Your task to perform on an android device: turn on translation in the chrome app Image 0: 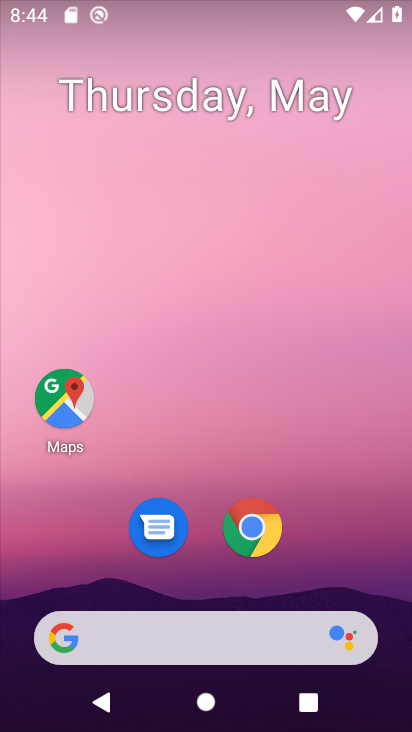
Step 0: click (245, 544)
Your task to perform on an android device: turn on translation in the chrome app Image 1: 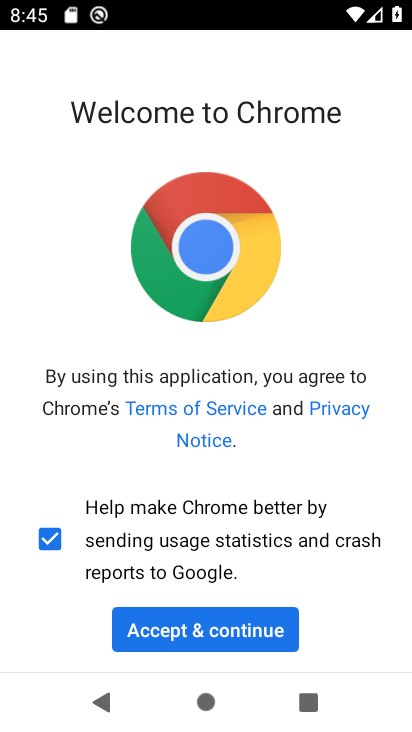
Step 1: click (212, 646)
Your task to perform on an android device: turn on translation in the chrome app Image 2: 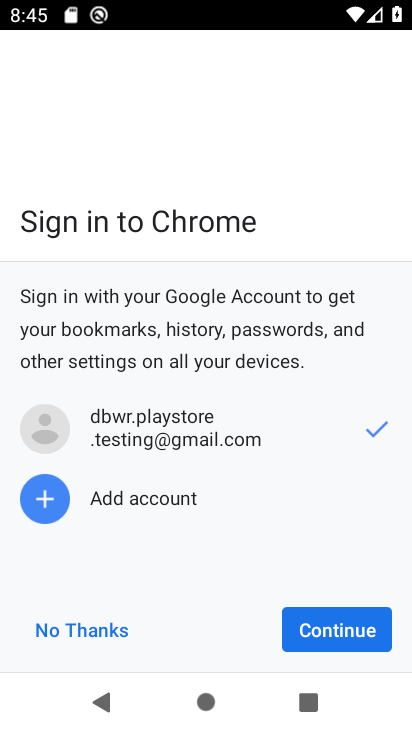
Step 2: click (351, 619)
Your task to perform on an android device: turn on translation in the chrome app Image 3: 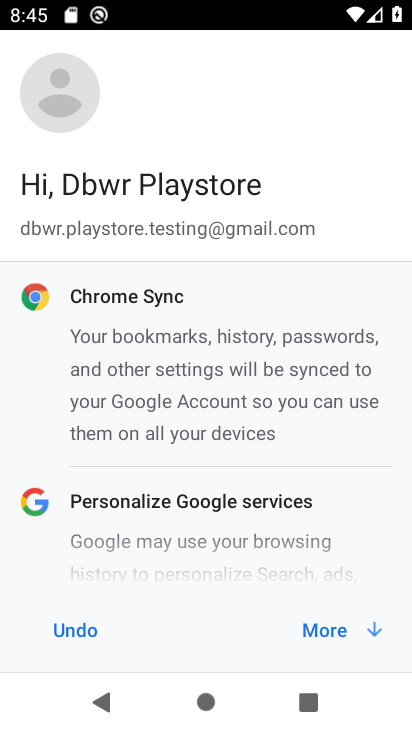
Step 3: click (341, 644)
Your task to perform on an android device: turn on translation in the chrome app Image 4: 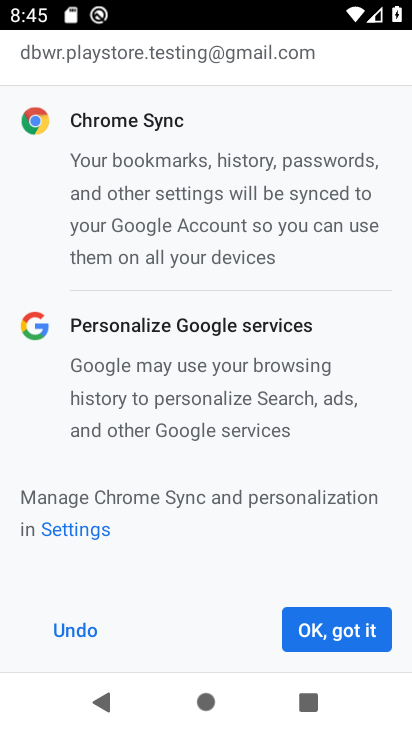
Step 4: click (341, 644)
Your task to perform on an android device: turn on translation in the chrome app Image 5: 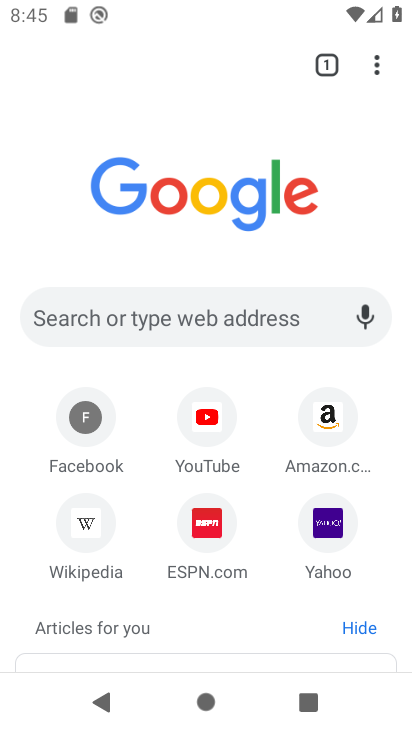
Step 5: click (377, 66)
Your task to perform on an android device: turn on translation in the chrome app Image 6: 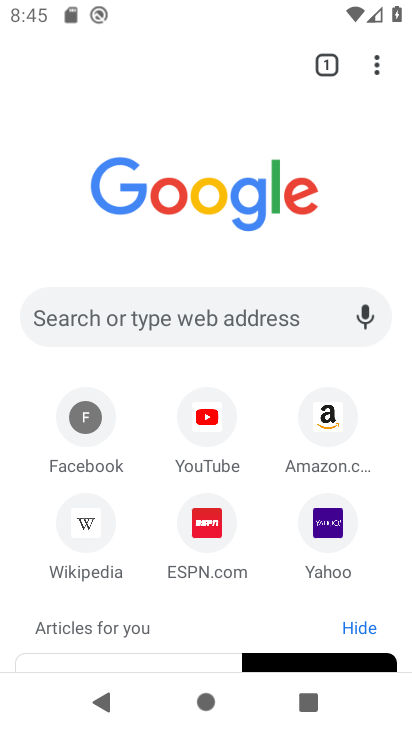
Step 6: click (381, 68)
Your task to perform on an android device: turn on translation in the chrome app Image 7: 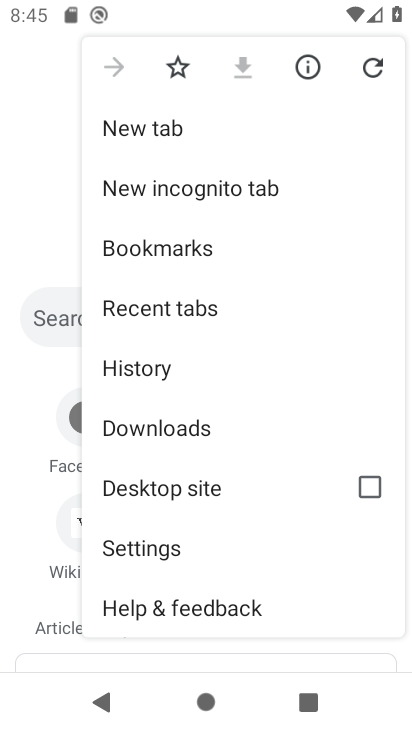
Step 7: click (131, 554)
Your task to perform on an android device: turn on translation in the chrome app Image 8: 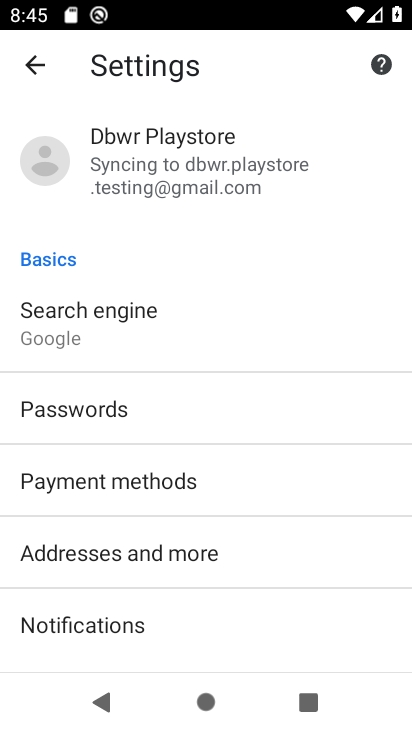
Step 8: drag from (138, 618) to (178, 249)
Your task to perform on an android device: turn on translation in the chrome app Image 9: 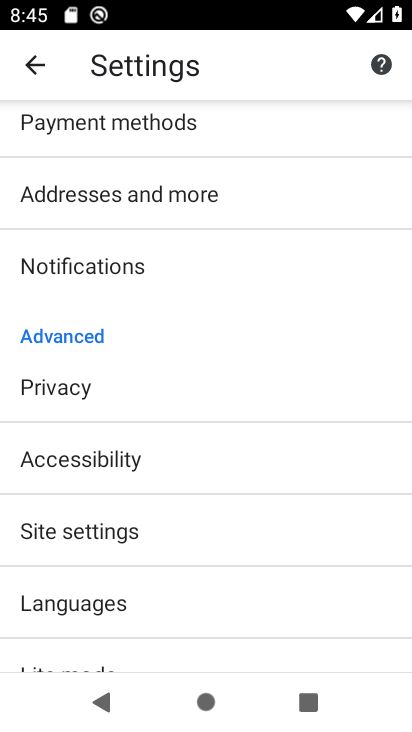
Step 9: drag from (93, 609) to (72, 397)
Your task to perform on an android device: turn on translation in the chrome app Image 10: 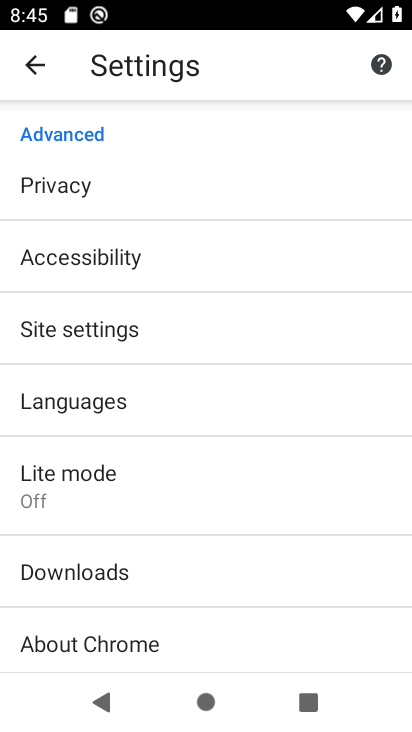
Step 10: click (95, 423)
Your task to perform on an android device: turn on translation in the chrome app Image 11: 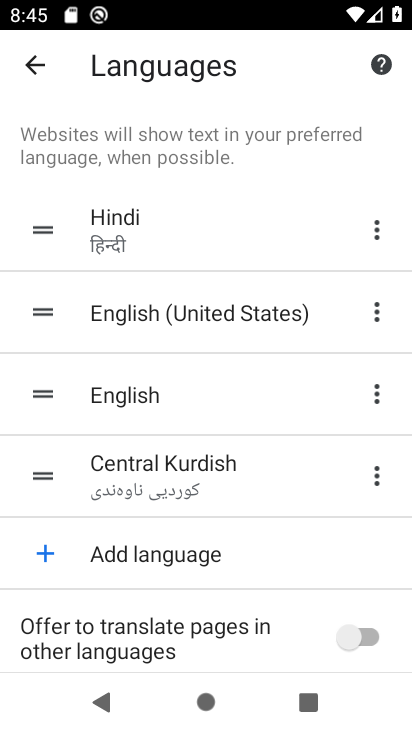
Step 11: click (385, 645)
Your task to perform on an android device: turn on translation in the chrome app Image 12: 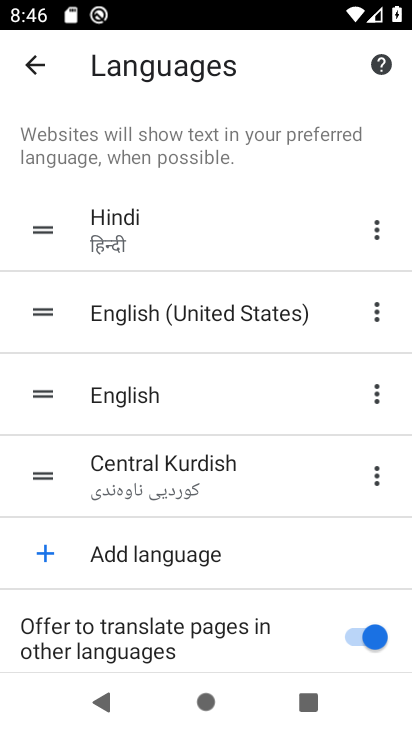
Step 12: task complete